Your task to perform on an android device: delete browsing data in the chrome app Image 0: 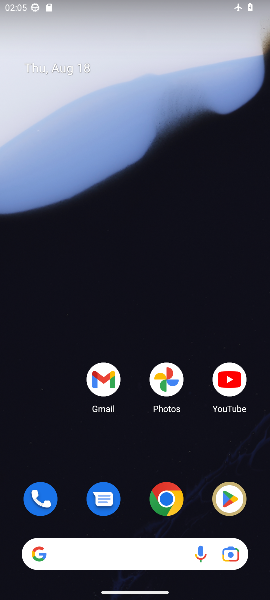
Step 0: click (170, 492)
Your task to perform on an android device: delete browsing data in the chrome app Image 1: 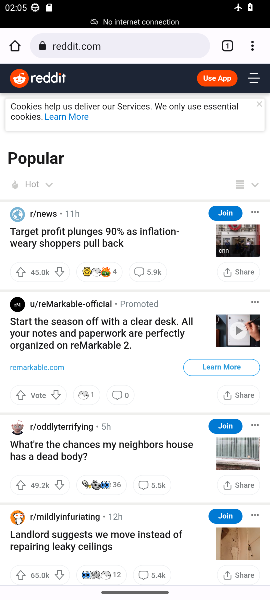
Step 1: click (246, 44)
Your task to perform on an android device: delete browsing data in the chrome app Image 2: 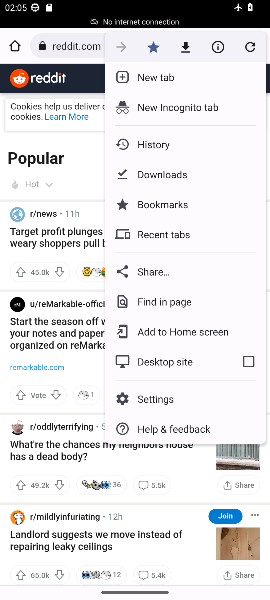
Step 2: click (147, 146)
Your task to perform on an android device: delete browsing data in the chrome app Image 3: 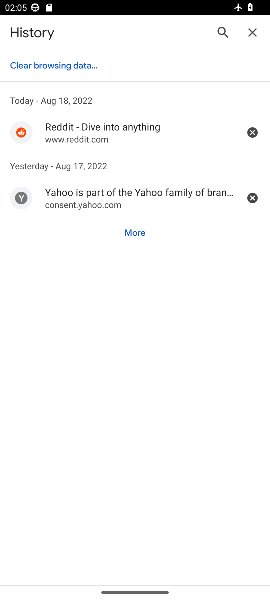
Step 3: click (53, 60)
Your task to perform on an android device: delete browsing data in the chrome app Image 4: 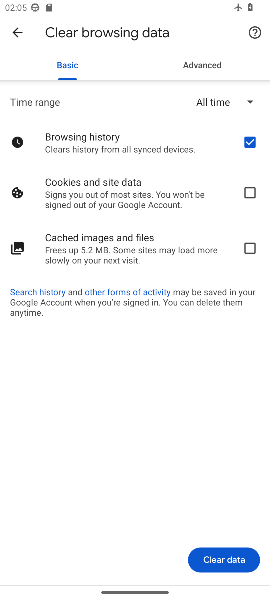
Step 4: click (229, 556)
Your task to perform on an android device: delete browsing data in the chrome app Image 5: 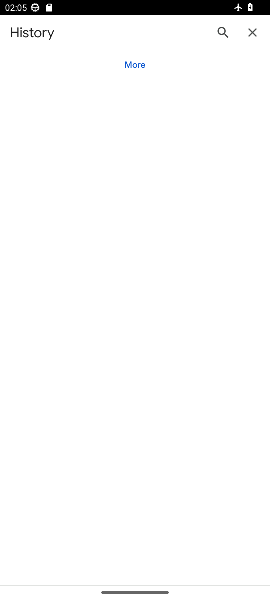
Step 5: task complete